Your task to perform on an android device: find photos in the google photos app Image 0: 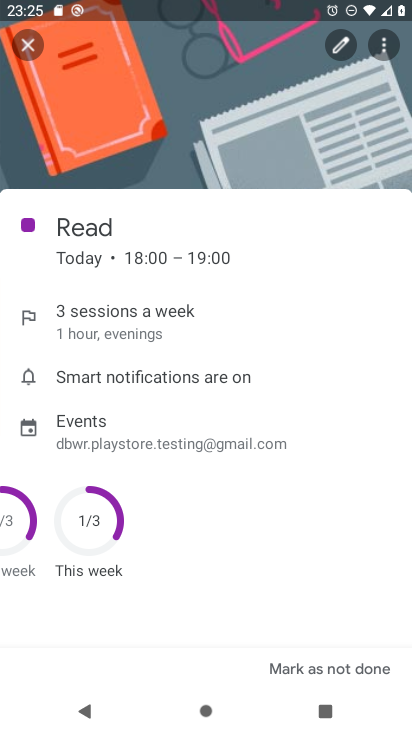
Step 0: press home button
Your task to perform on an android device: find photos in the google photos app Image 1: 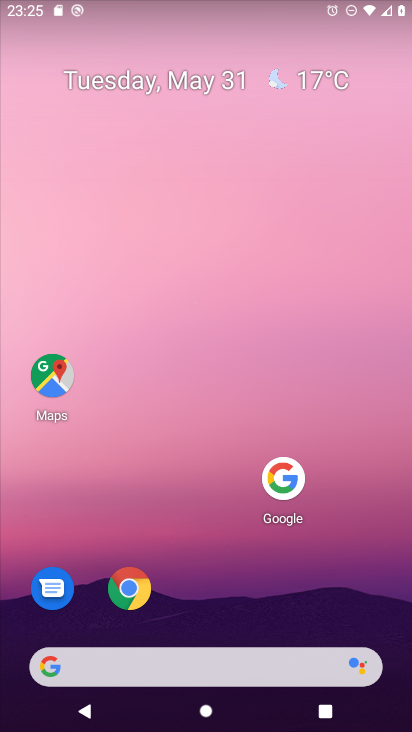
Step 1: drag from (225, 653) to (216, 69)
Your task to perform on an android device: find photos in the google photos app Image 2: 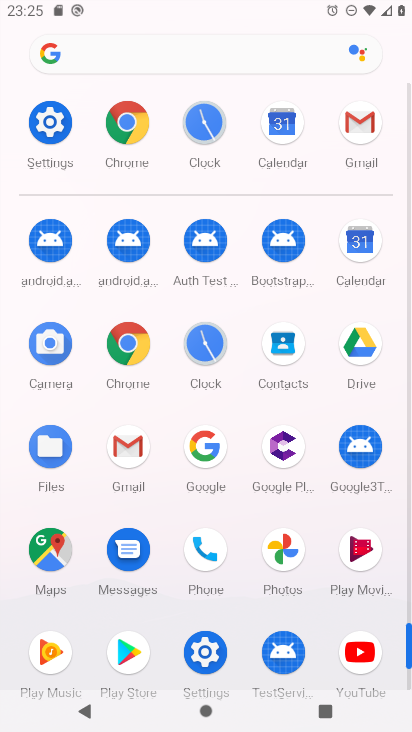
Step 2: click (284, 554)
Your task to perform on an android device: find photos in the google photos app Image 3: 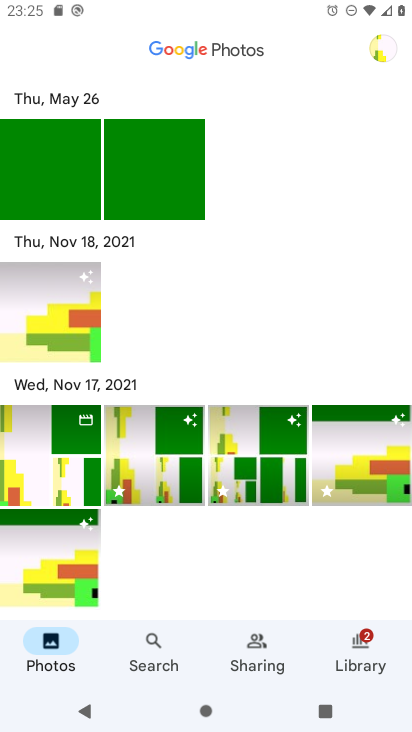
Step 3: task complete